Your task to perform on an android device: Open Chrome and go to settings Image 0: 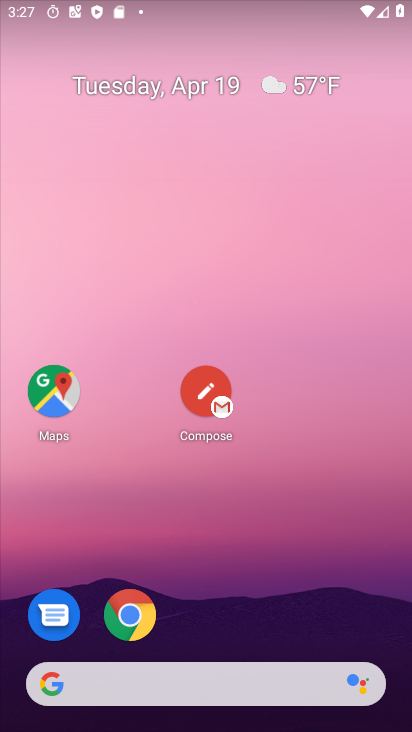
Step 0: drag from (307, 530) to (309, 91)
Your task to perform on an android device: Open Chrome and go to settings Image 1: 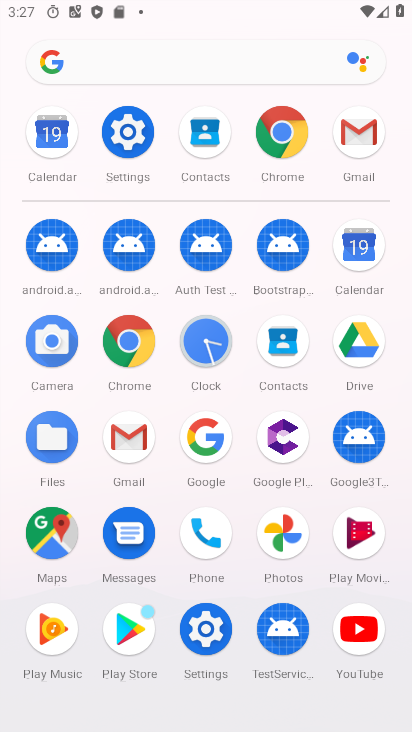
Step 1: click (130, 354)
Your task to perform on an android device: Open Chrome and go to settings Image 2: 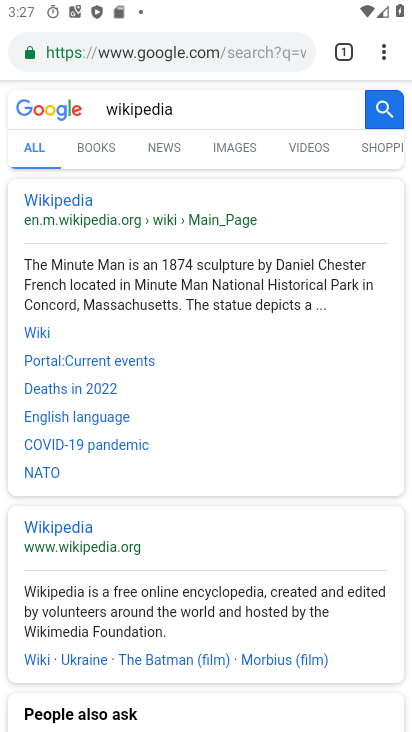
Step 2: click (379, 54)
Your task to perform on an android device: Open Chrome and go to settings Image 3: 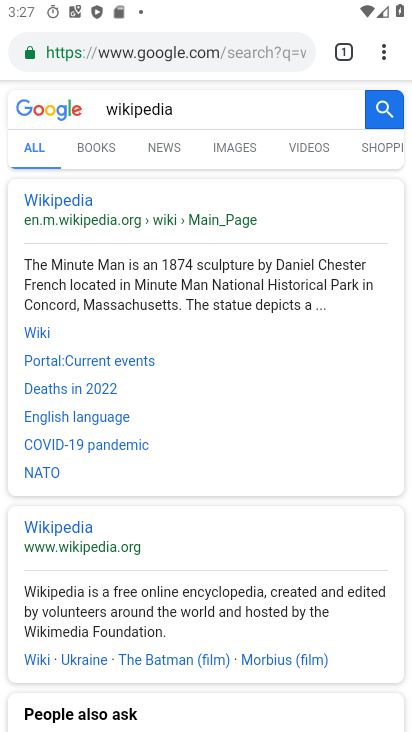
Step 3: click (379, 54)
Your task to perform on an android device: Open Chrome and go to settings Image 4: 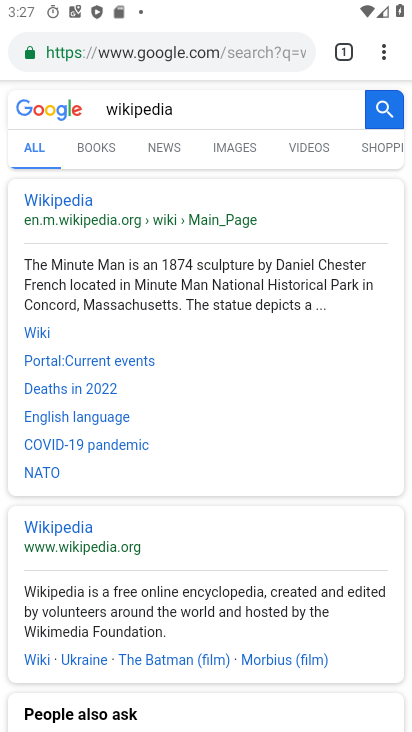
Step 4: click (381, 52)
Your task to perform on an android device: Open Chrome and go to settings Image 5: 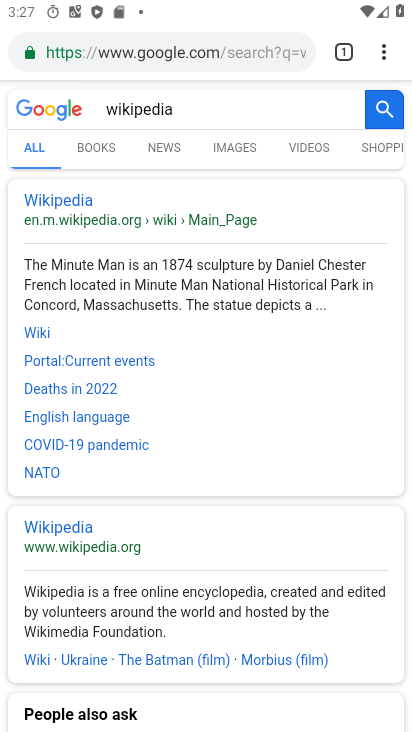
Step 5: click (371, 48)
Your task to perform on an android device: Open Chrome and go to settings Image 6: 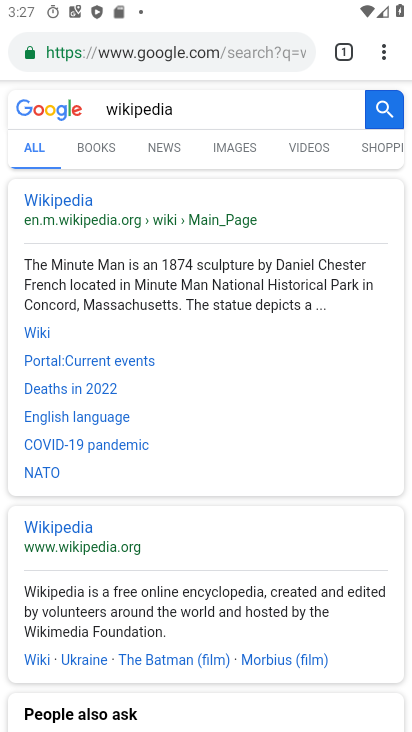
Step 6: click (384, 52)
Your task to perform on an android device: Open Chrome and go to settings Image 7: 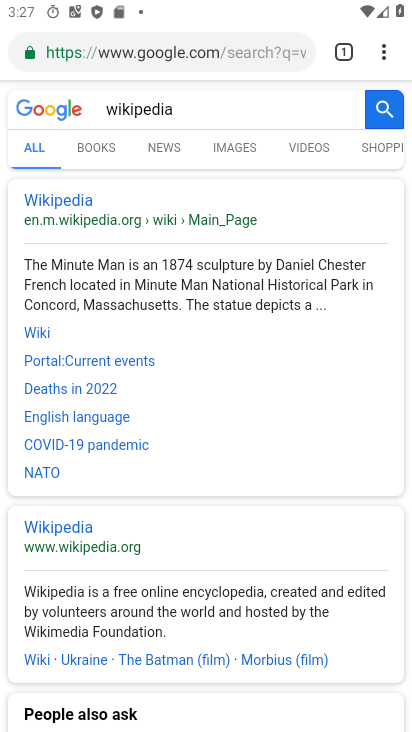
Step 7: click (392, 51)
Your task to perform on an android device: Open Chrome and go to settings Image 8: 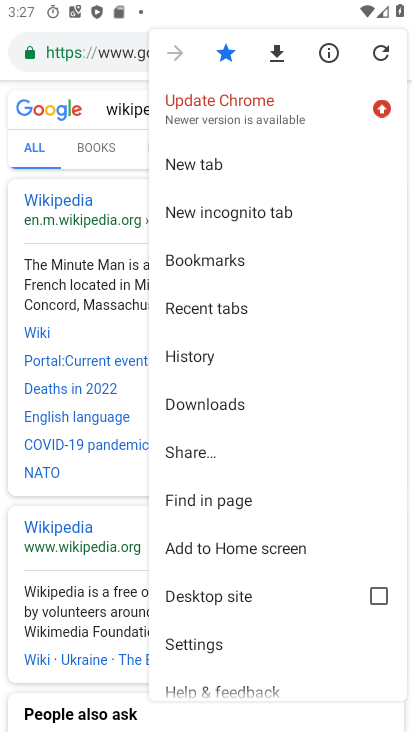
Step 8: click (235, 647)
Your task to perform on an android device: Open Chrome and go to settings Image 9: 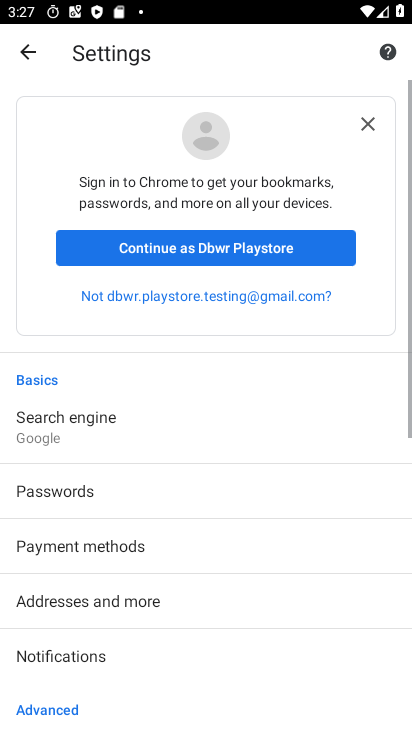
Step 9: task complete